Your task to perform on an android device: turn on notifications settings in the gmail app Image 0: 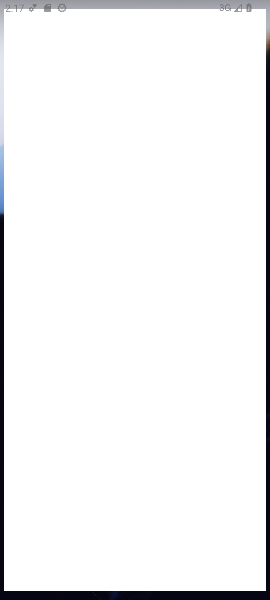
Step 0: press home button
Your task to perform on an android device: turn on notifications settings in the gmail app Image 1: 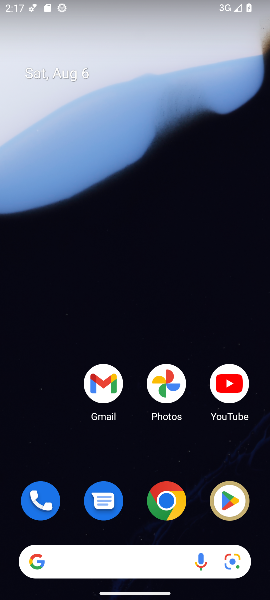
Step 1: click (95, 388)
Your task to perform on an android device: turn on notifications settings in the gmail app Image 2: 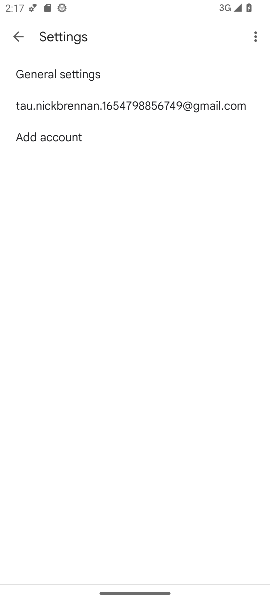
Step 2: click (112, 107)
Your task to perform on an android device: turn on notifications settings in the gmail app Image 3: 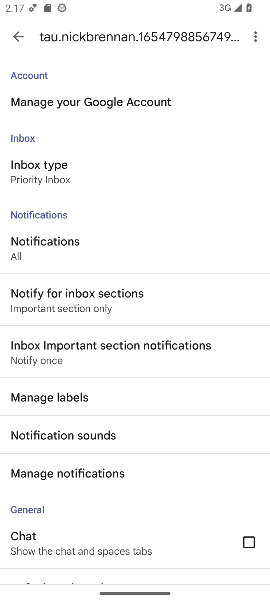
Step 3: click (51, 477)
Your task to perform on an android device: turn on notifications settings in the gmail app Image 4: 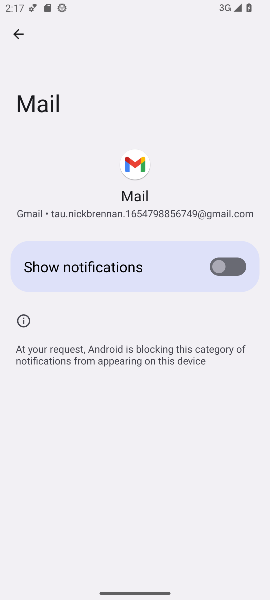
Step 4: click (218, 262)
Your task to perform on an android device: turn on notifications settings in the gmail app Image 5: 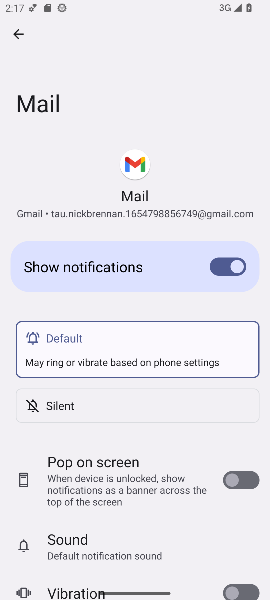
Step 5: task complete